Your task to perform on an android device: Search for energizer triple a on costco, select the first entry, add it to the cart, then select checkout. Image 0: 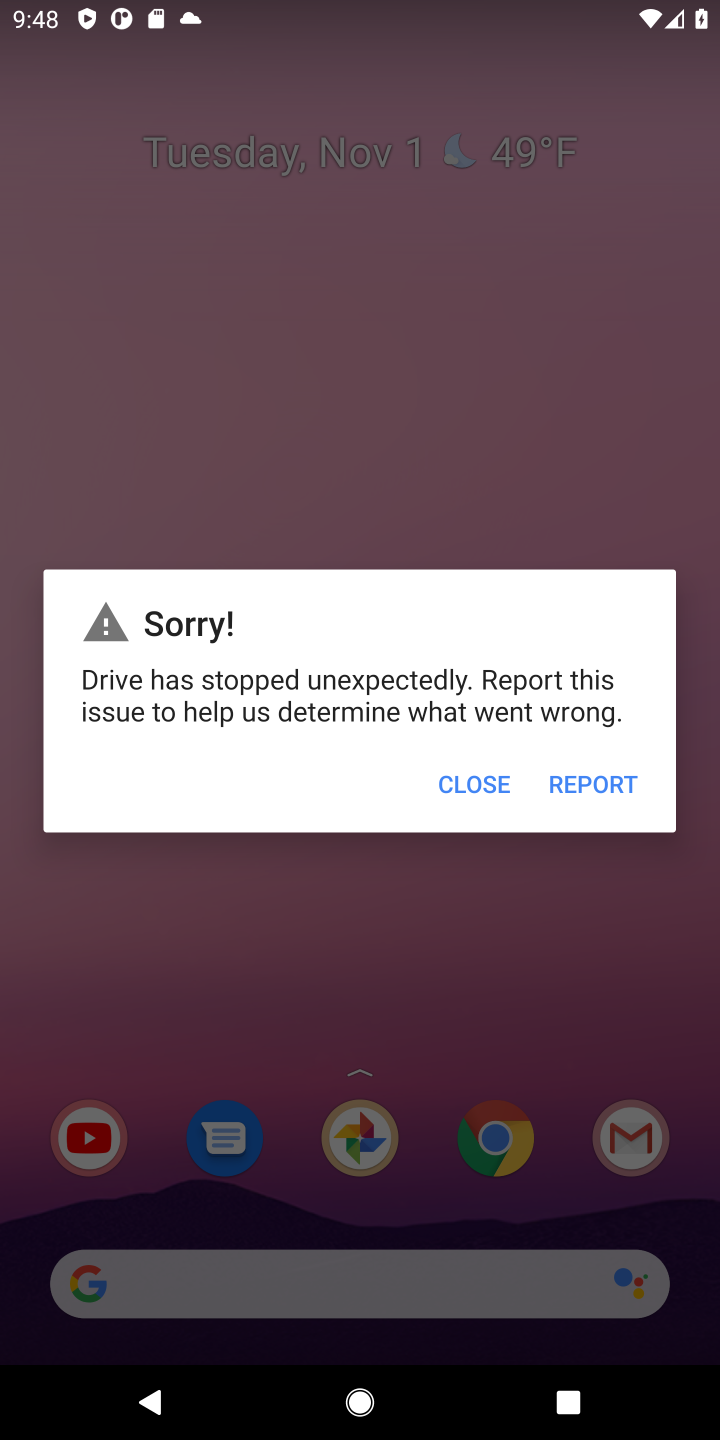
Step 0: press home button
Your task to perform on an android device: Search for energizer triple a on costco, select the first entry, add it to the cart, then select checkout. Image 1: 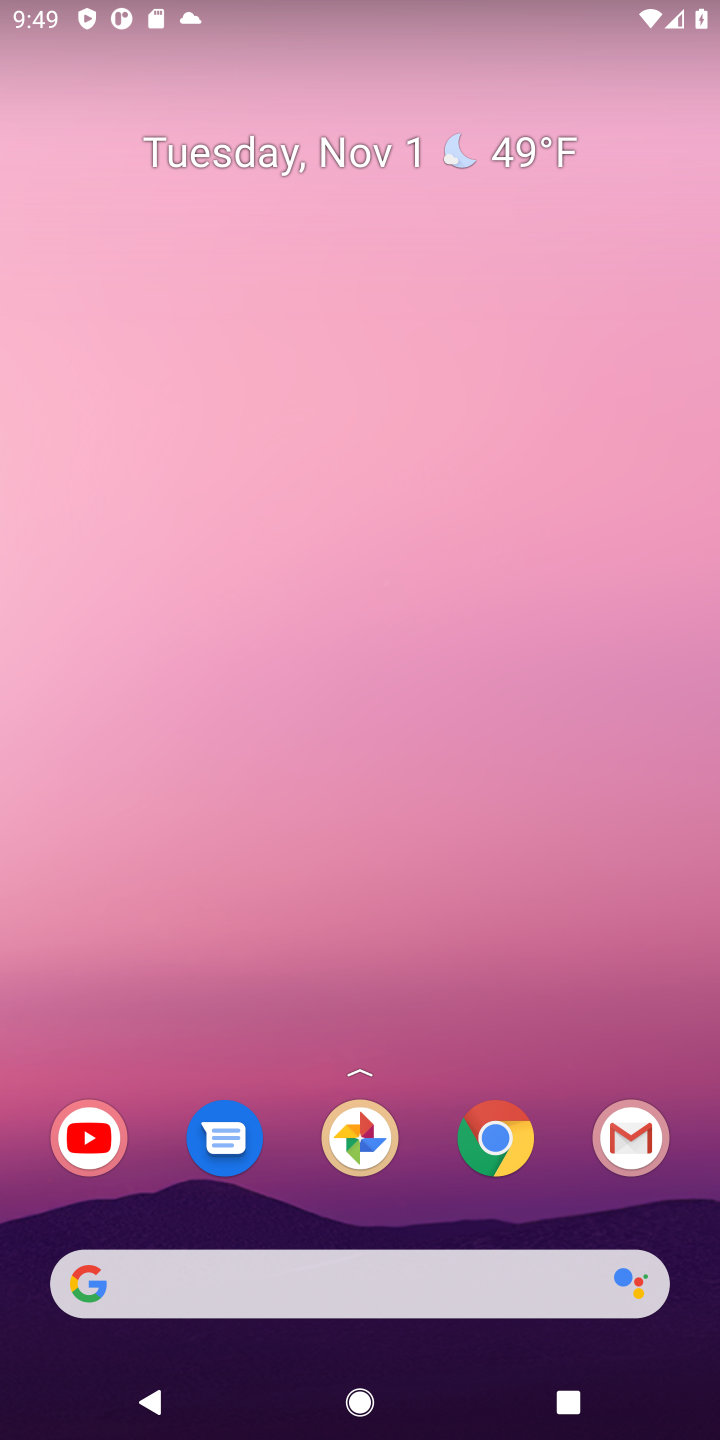
Step 1: click (507, 1137)
Your task to perform on an android device: Search for energizer triple a on costco, select the first entry, add it to the cart, then select checkout. Image 2: 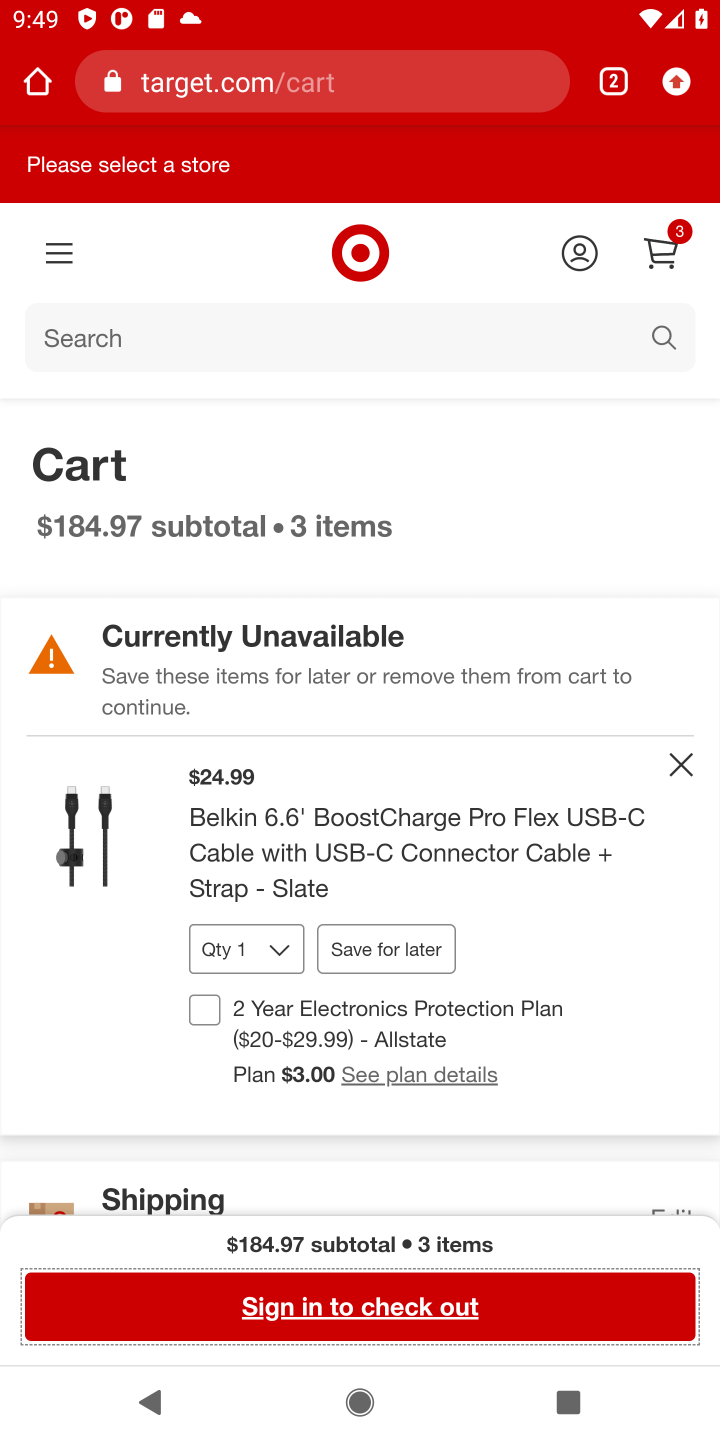
Step 2: click (262, 93)
Your task to perform on an android device: Search for energizer triple a on costco, select the first entry, add it to the cart, then select checkout. Image 3: 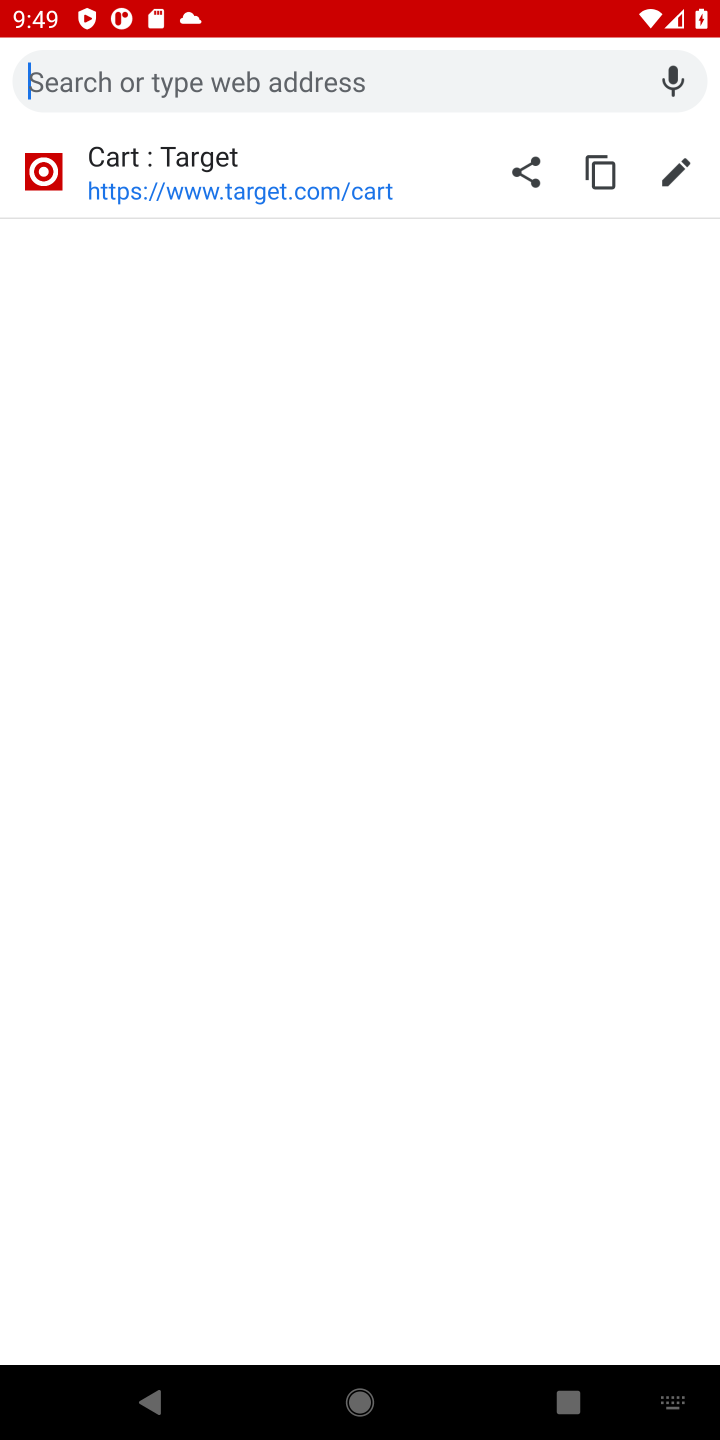
Step 3: type "costco"
Your task to perform on an android device: Search for energizer triple a on costco, select the first entry, add it to the cart, then select checkout. Image 4: 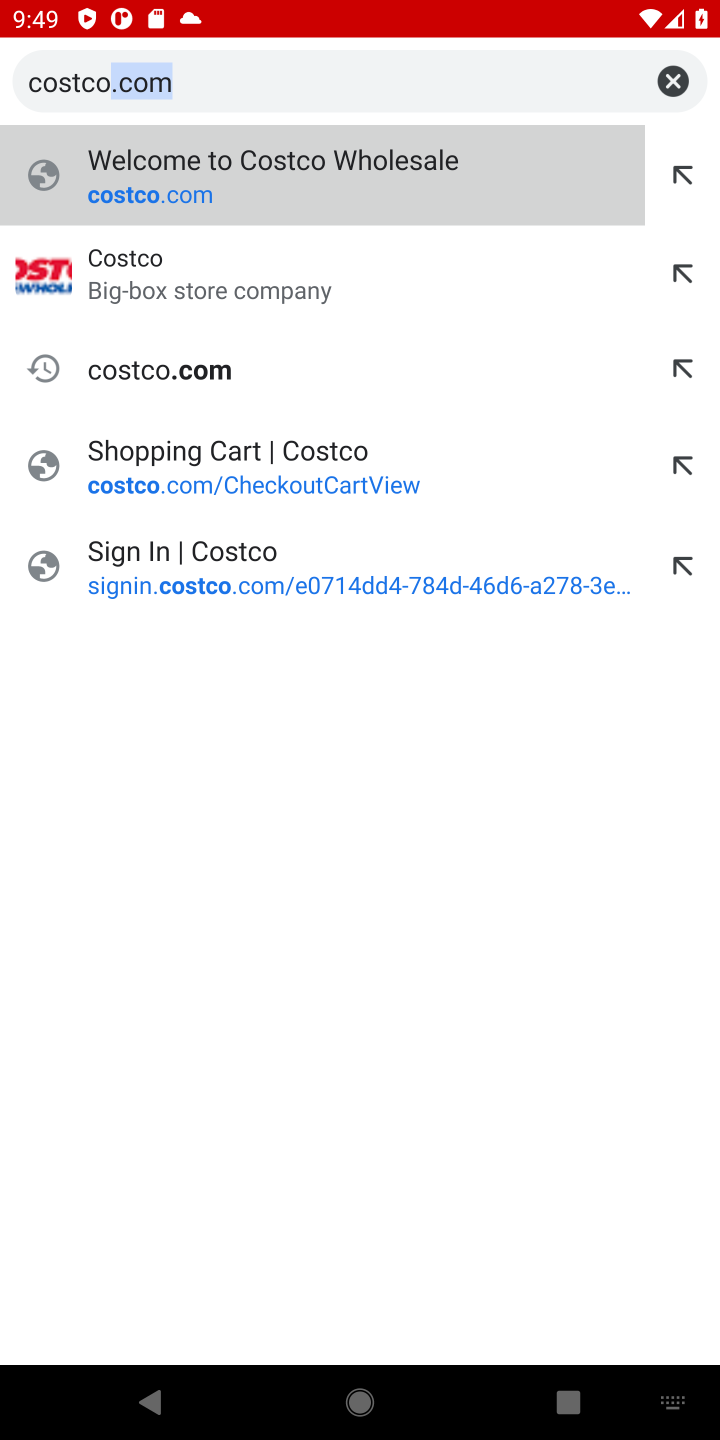
Step 4: click (137, 272)
Your task to perform on an android device: Search for energizer triple a on costco, select the first entry, add it to the cart, then select checkout. Image 5: 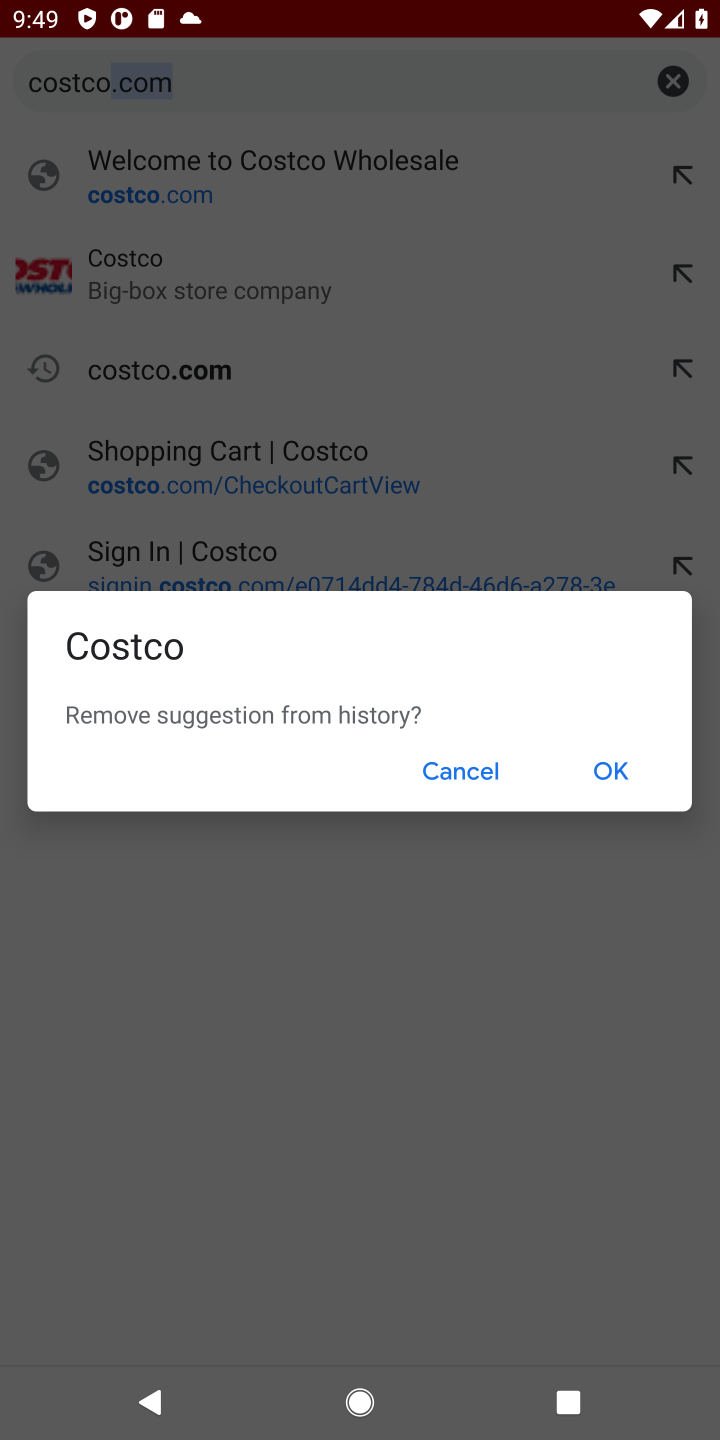
Step 5: click (509, 490)
Your task to perform on an android device: Search for energizer triple a on costco, select the first entry, add it to the cart, then select checkout. Image 6: 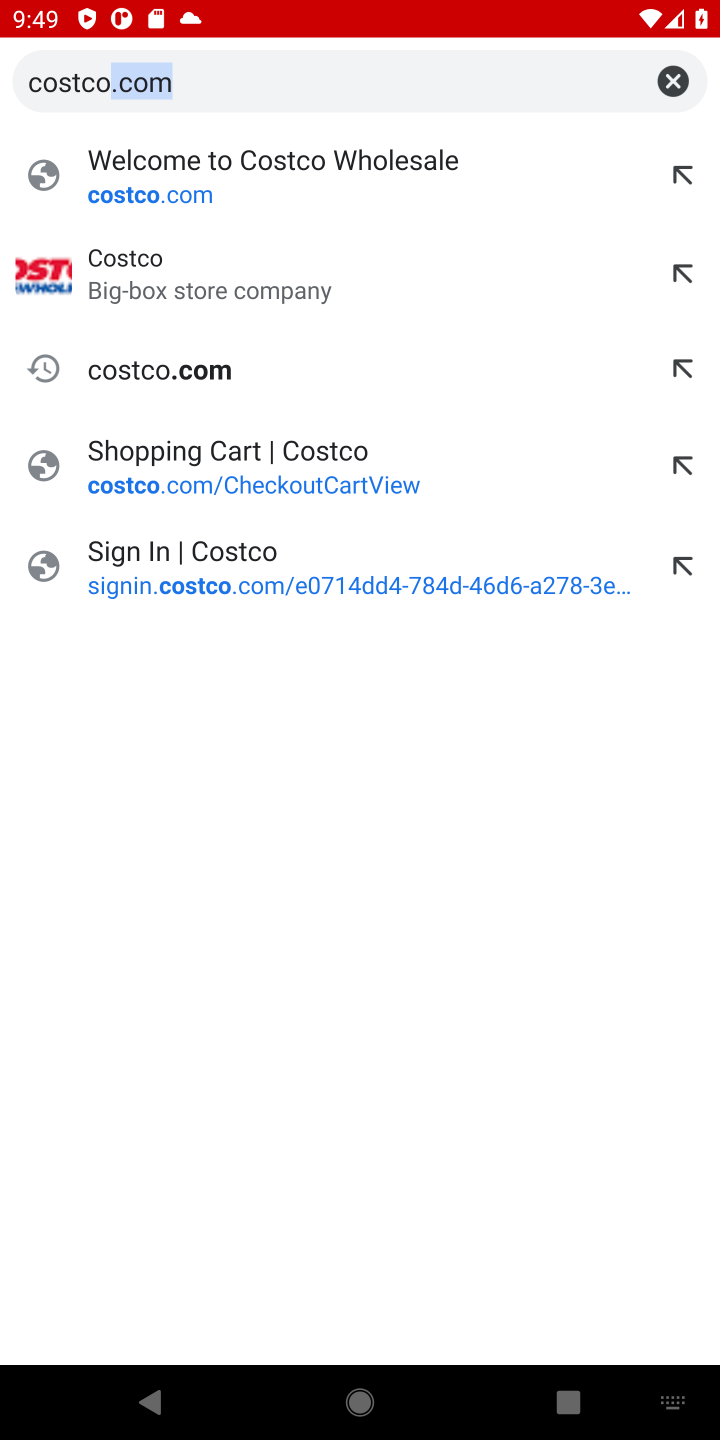
Step 6: click (299, 284)
Your task to perform on an android device: Search for energizer triple a on costco, select the first entry, add it to the cart, then select checkout. Image 7: 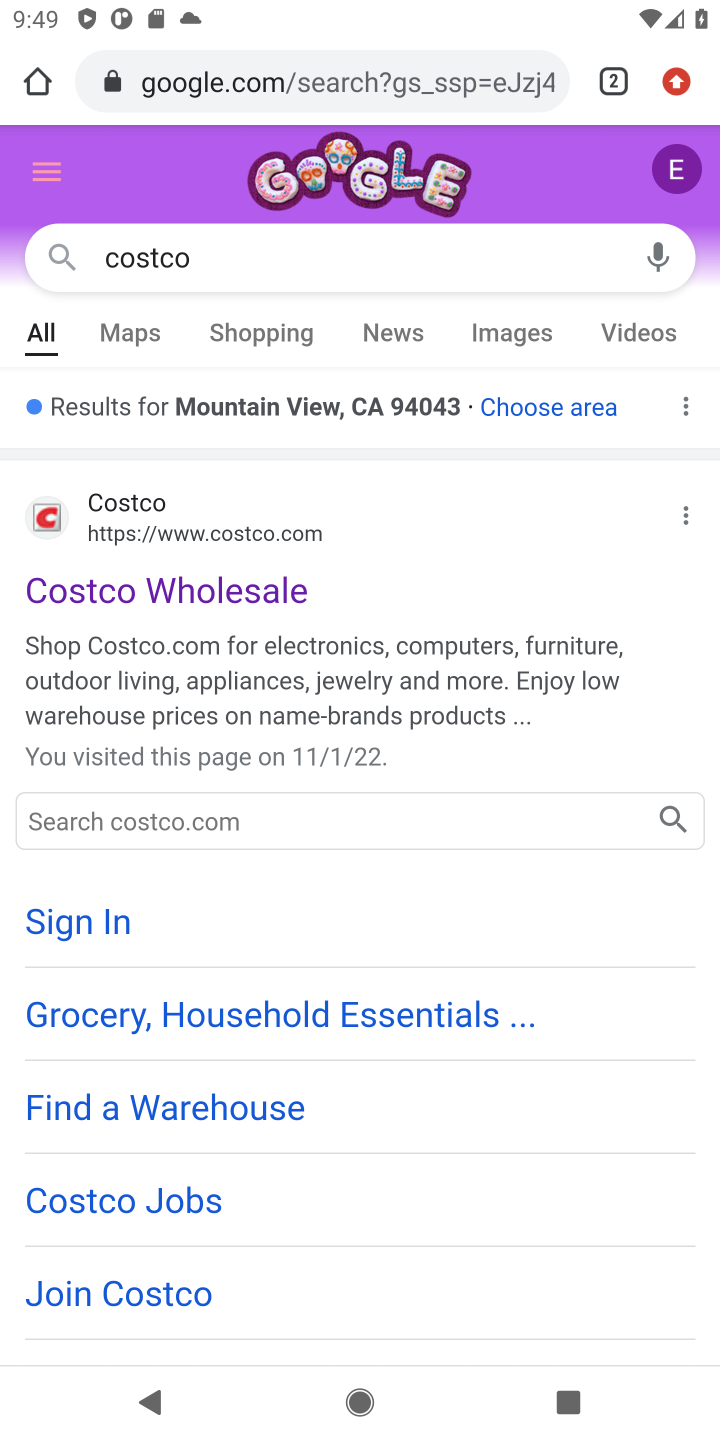
Step 7: click (231, 592)
Your task to perform on an android device: Search for energizer triple a on costco, select the first entry, add it to the cart, then select checkout. Image 8: 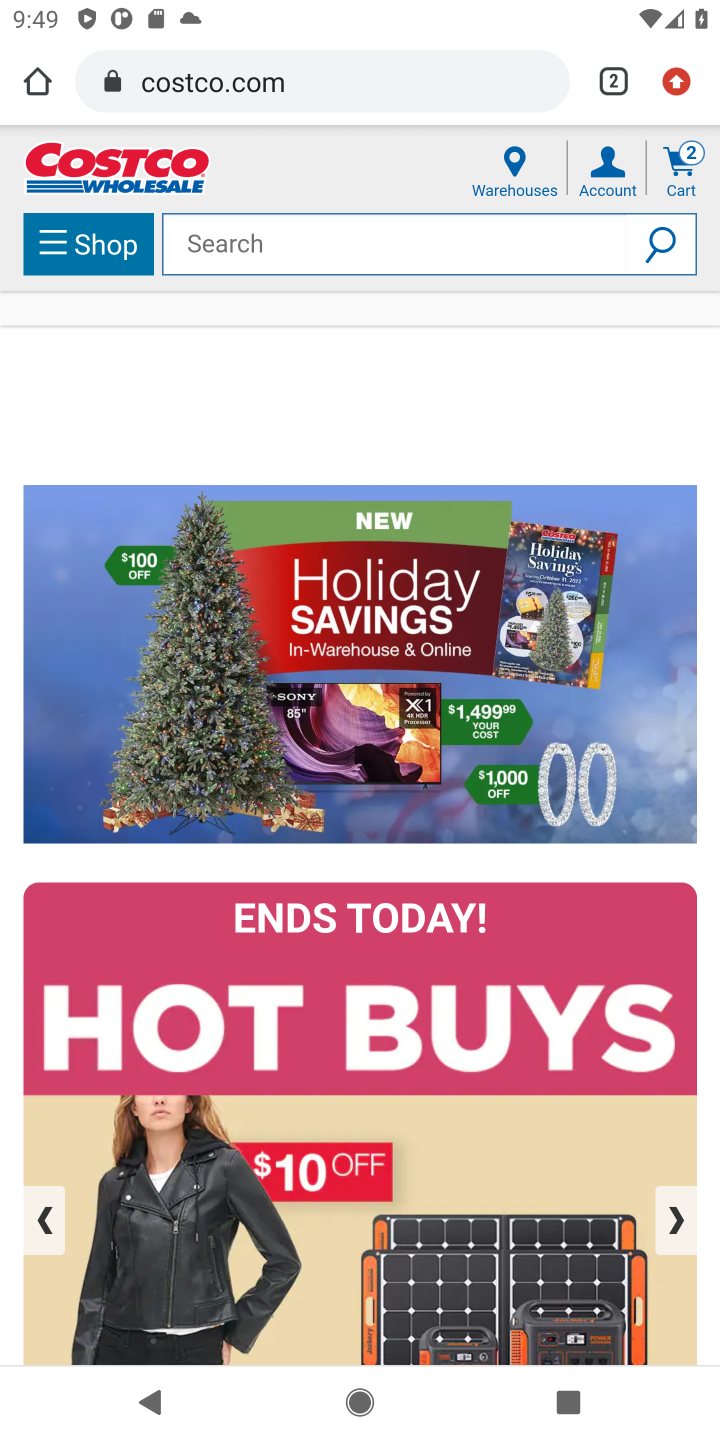
Step 8: click (347, 243)
Your task to perform on an android device: Search for energizer triple a on costco, select the first entry, add it to the cart, then select checkout. Image 9: 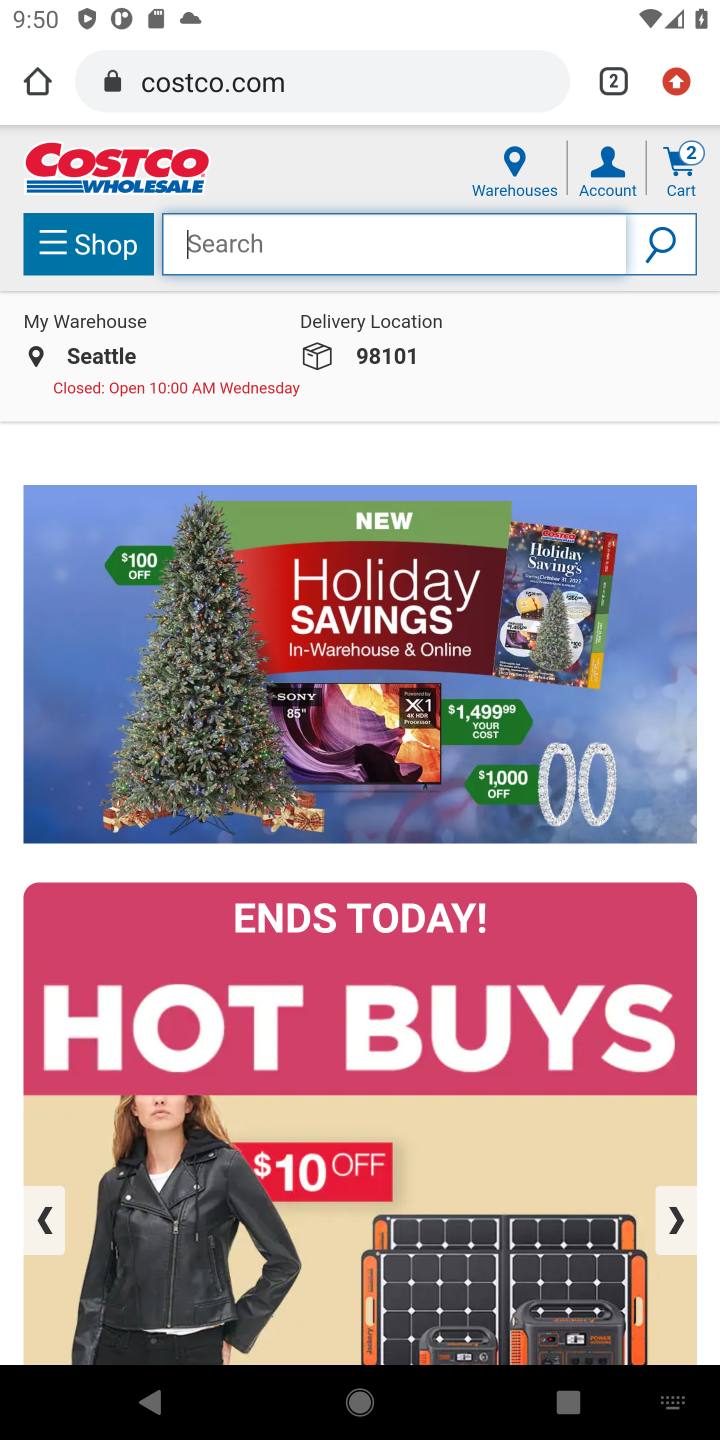
Step 9: type "energizer triple a"
Your task to perform on an android device: Search for energizer triple a on costco, select the first entry, add it to the cart, then select checkout. Image 10: 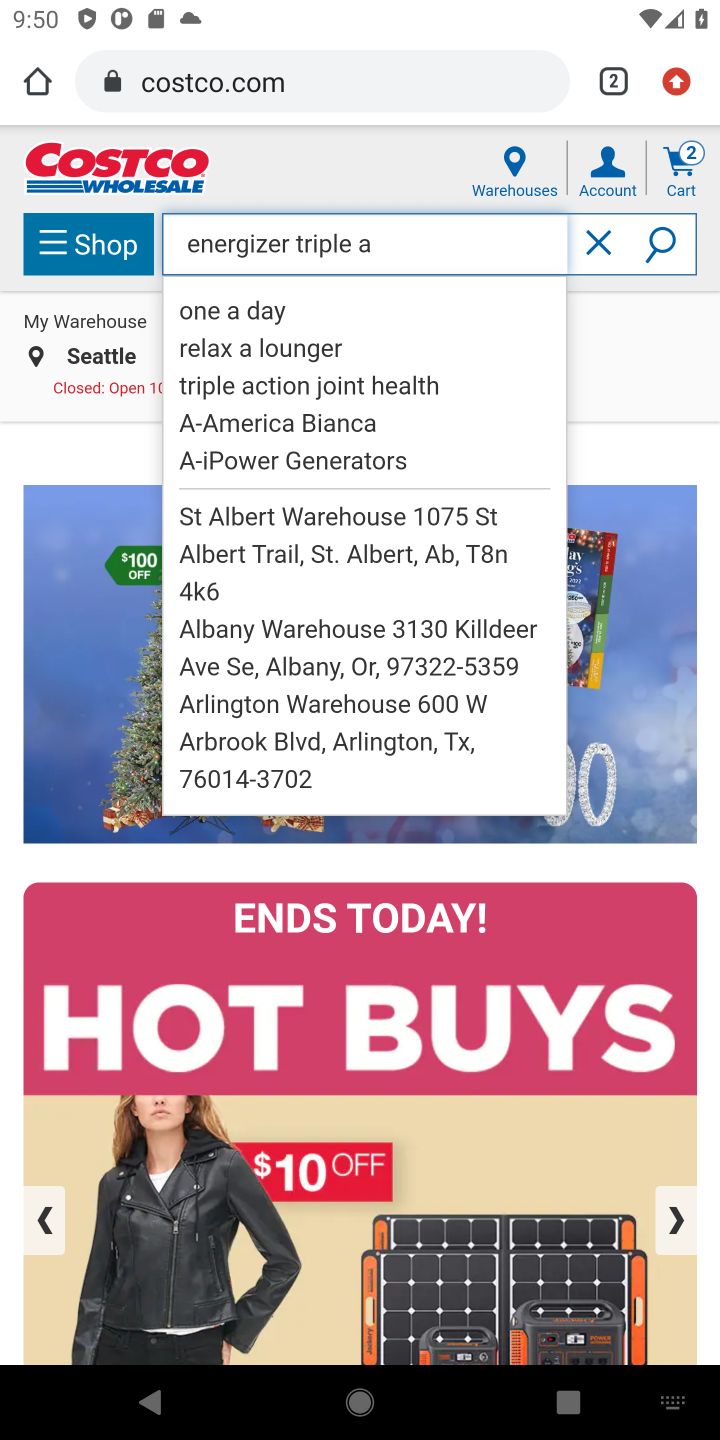
Step 10: click (659, 245)
Your task to perform on an android device: Search for energizer triple a on costco, select the first entry, add it to the cart, then select checkout. Image 11: 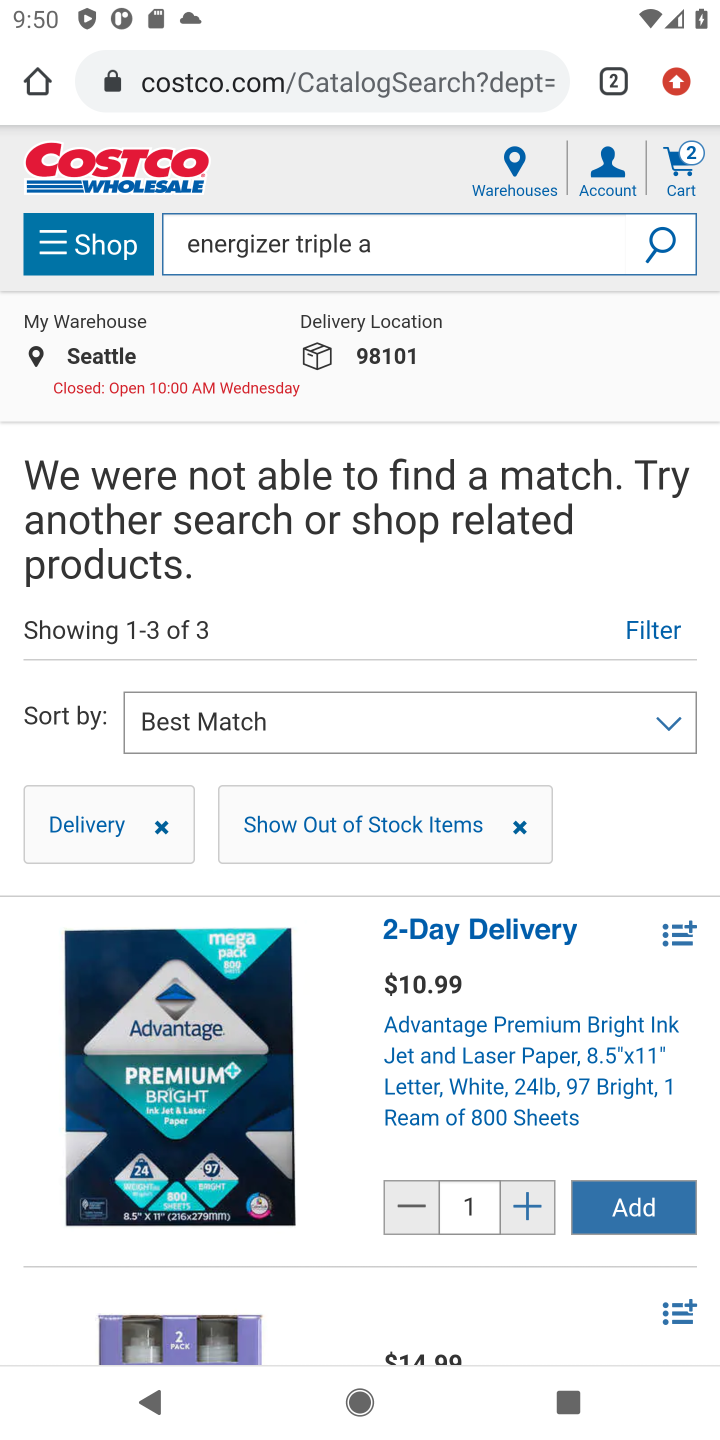
Step 11: task complete